Your task to perform on an android device: Open maps Image 0: 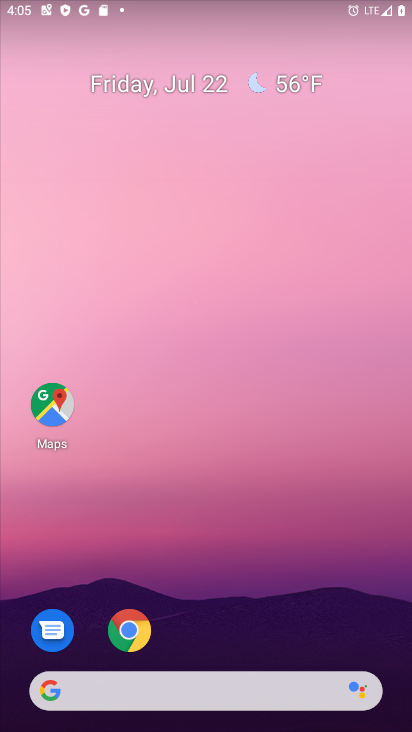
Step 0: click (54, 395)
Your task to perform on an android device: Open maps Image 1: 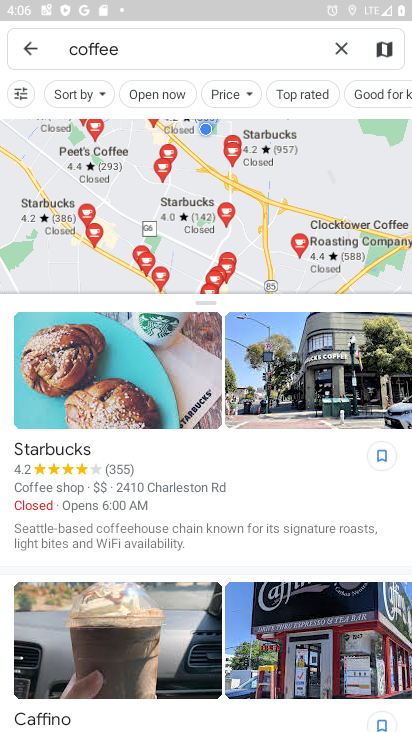
Step 1: task complete